Your task to perform on an android device: turn on sleep mode Image 0: 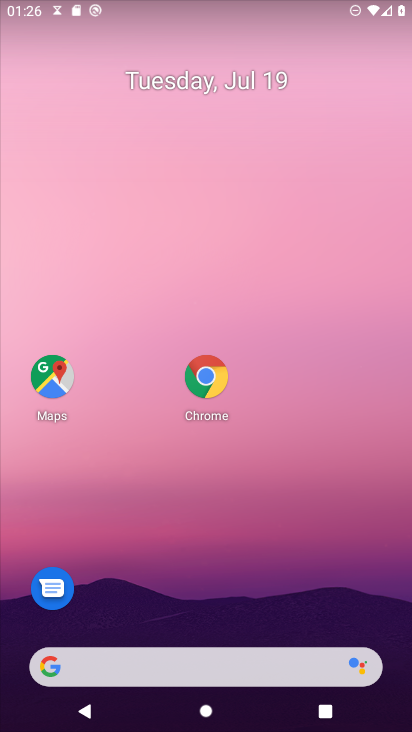
Step 0: press home button
Your task to perform on an android device: turn on sleep mode Image 1: 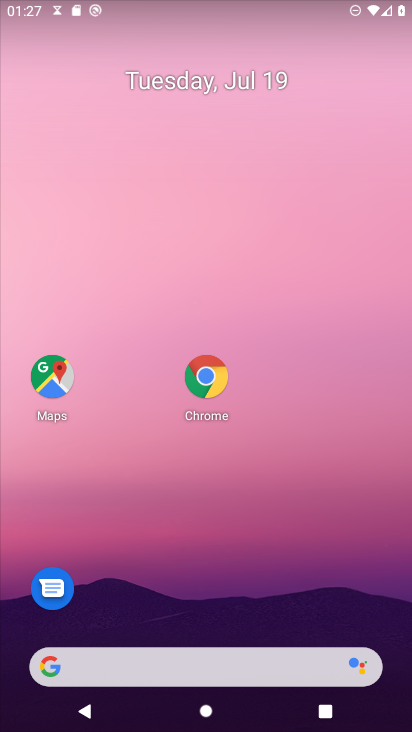
Step 1: drag from (212, 615) to (222, 4)
Your task to perform on an android device: turn on sleep mode Image 2: 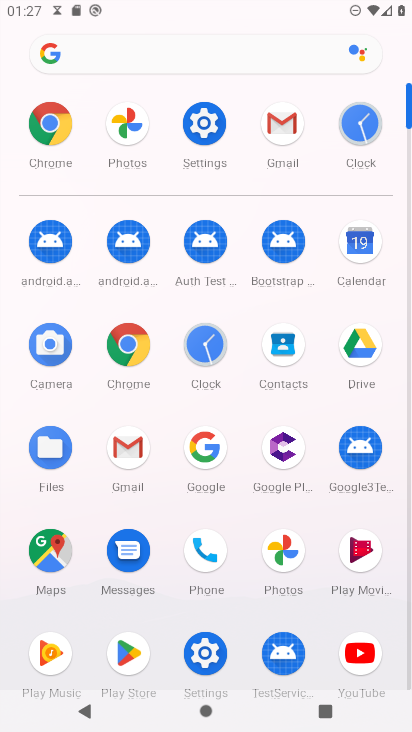
Step 2: click (205, 130)
Your task to perform on an android device: turn on sleep mode Image 3: 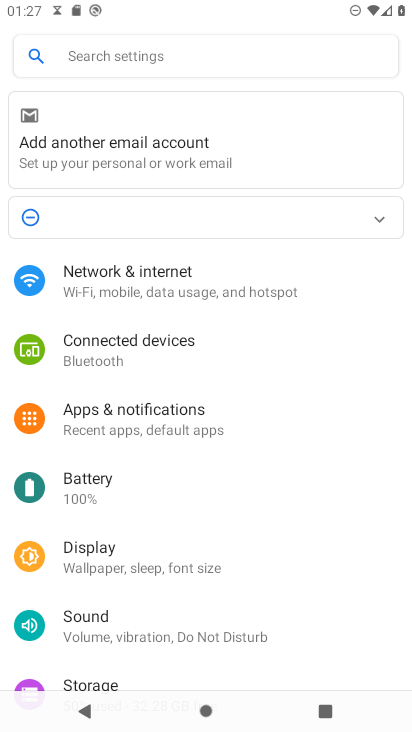
Step 3: click (76, 551)
Your task to perform on an android device: turn on sleep mode Image 4: 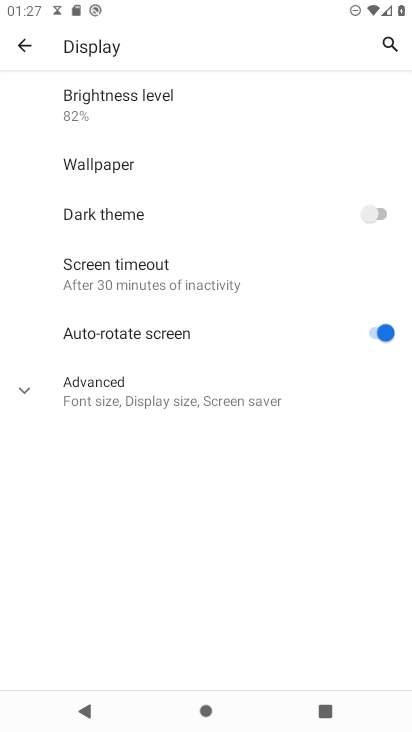
Step 4: task complete